Your task to perform on an android device: Check the news Image 0: 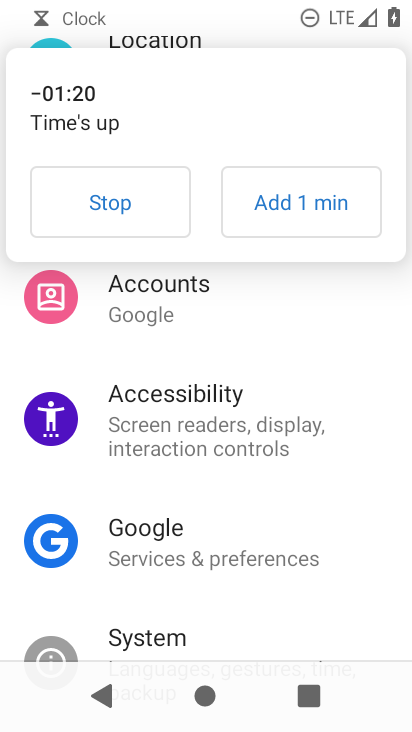
Step 0: click (137, 197)
Your task to perform on an android device: Check the news Image 1: 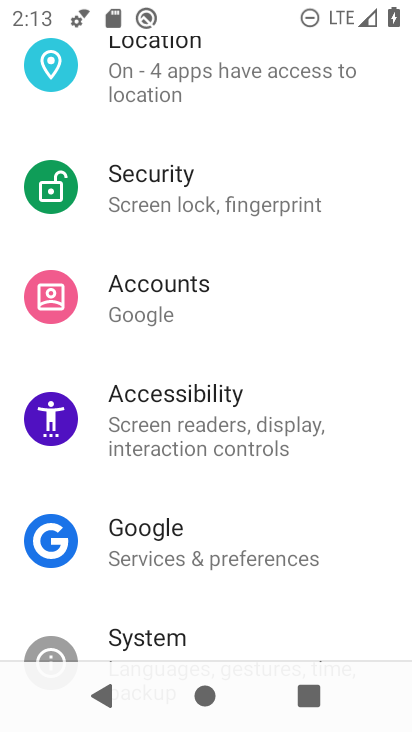
Step 1: press home button
Your task to perform on an android device: Check the news Image 2: 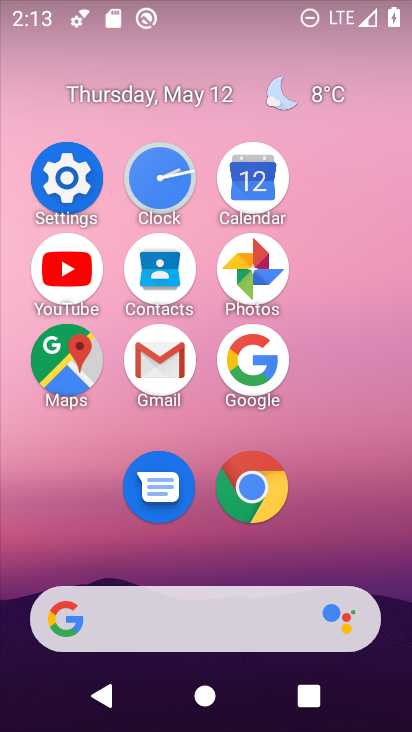
Step 2: click (272, 336)
Your task to perform on an android device: Check the news Image 3: 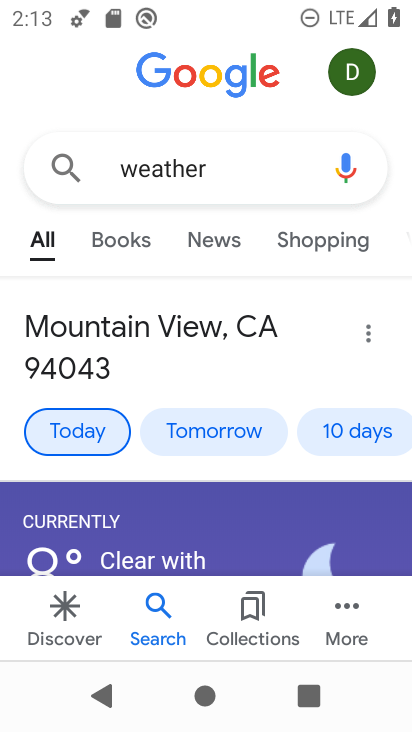
Step 3: click (242, 166)
Your task to perform on an android device: Check the news Image 4: 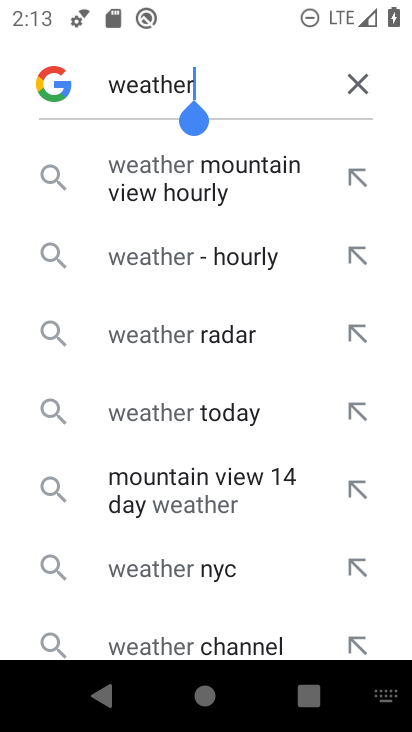
Step 4: click (347, 78)
Your task to perform on an android device: Check the news Image 5: 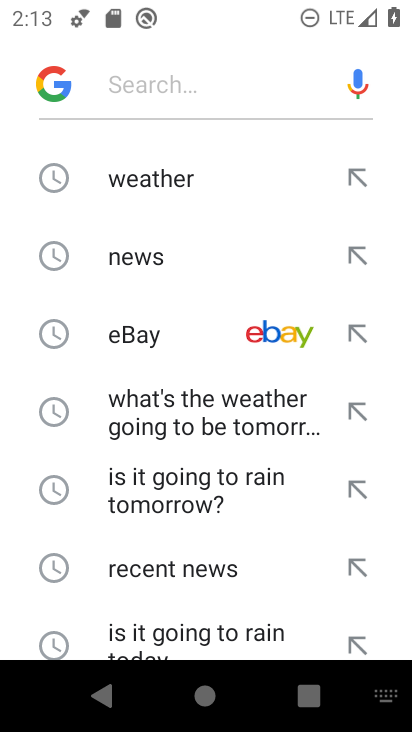
Step 5: click (171, 268)
Your task to perform on an android device: Check the news Image 6: 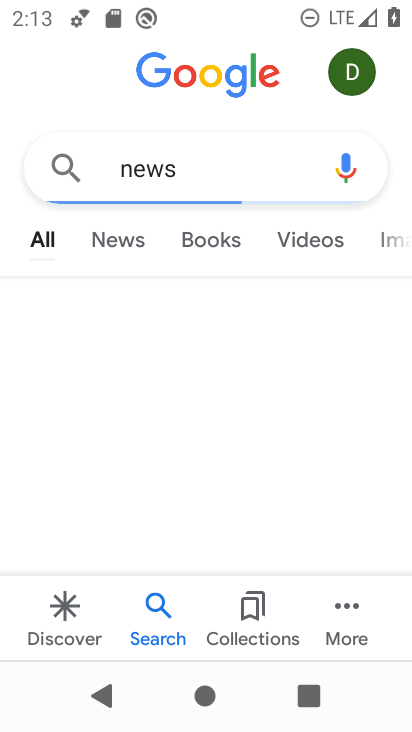
Step 6: task complete